Your task to perform on an android device: Go to Amazon Image 0: 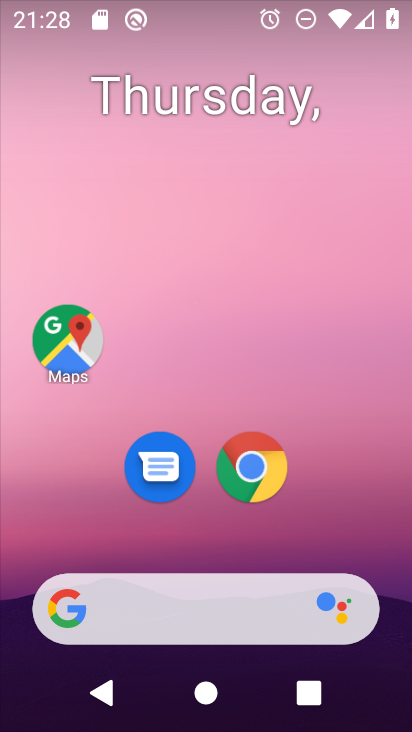
Step 0: click (253, 462)
Your task to perform on an android device: Go to Amazon Image 1: 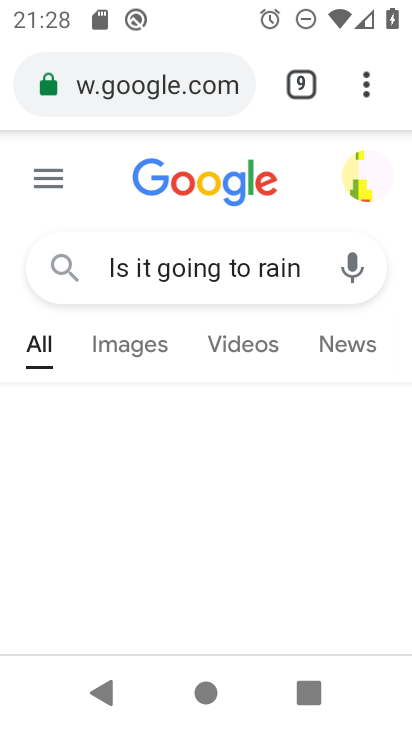
Step 1: click (362, 70)
Your task to perform on an android device: Go to Amazon Image 2: 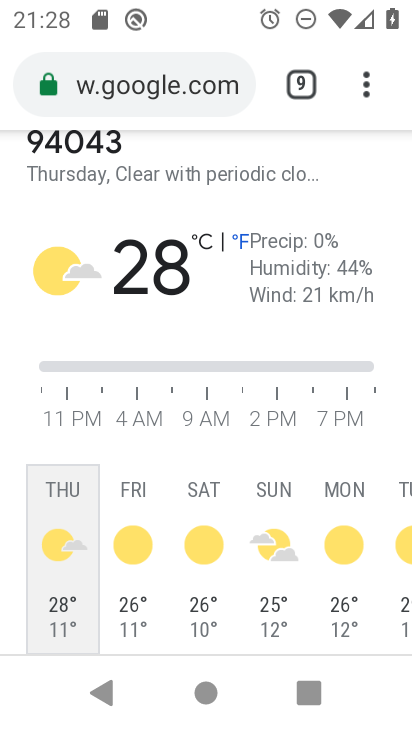
Step 2: click (360, 83)
Your task to perform on an android device: Go to Amazon Image 3: 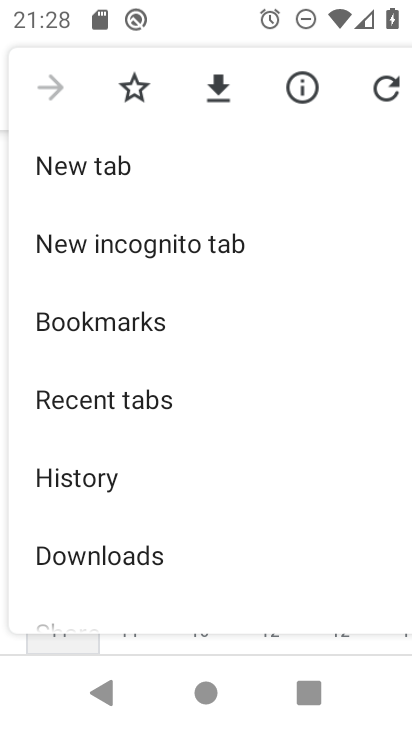
Step 3: click (134, 165)
Your task to perform on an android device: Go to Amazon Image 4: 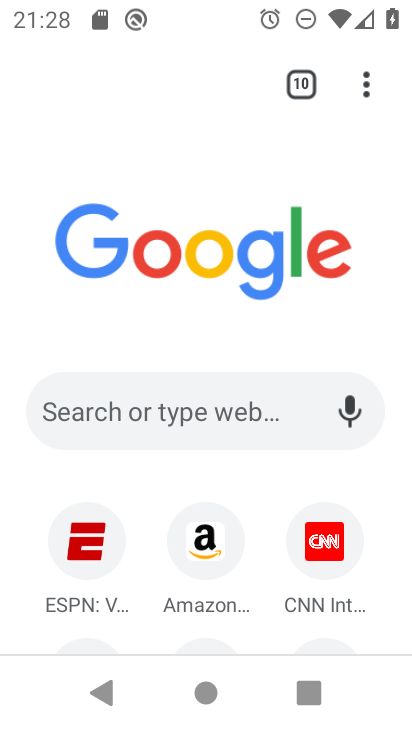
Step 4: click (208, 548)
Your task to perform on an android device: Go to Amazon Image 5: 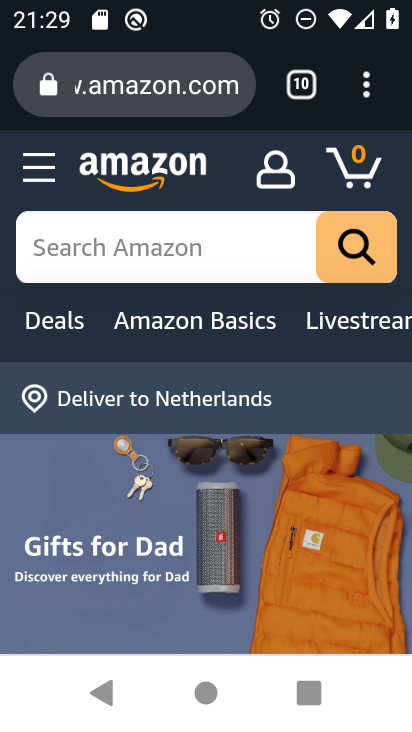
Step 5: task complete